Your task to perform on an android device: turn on airplane mode Image 0: 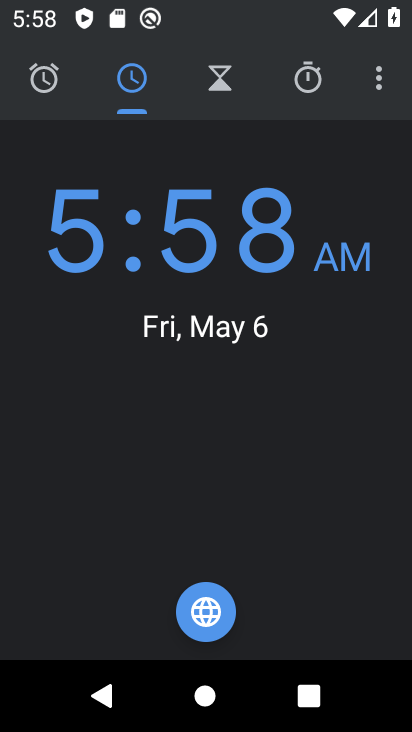
Step 0: drag from (266, 7) to (247, 575)
Your task to perform on an android device: turn on airplane mode Image 1: 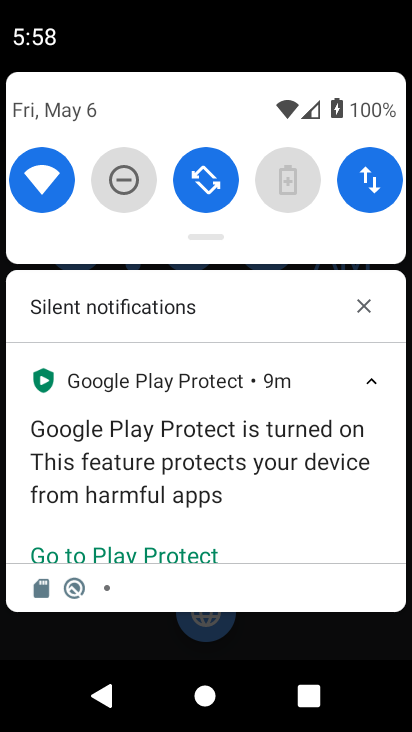
Step 1: drag from (321, 243) to (334, 653)
Your task to perform on an android device: turn on airplane mode Image 2: 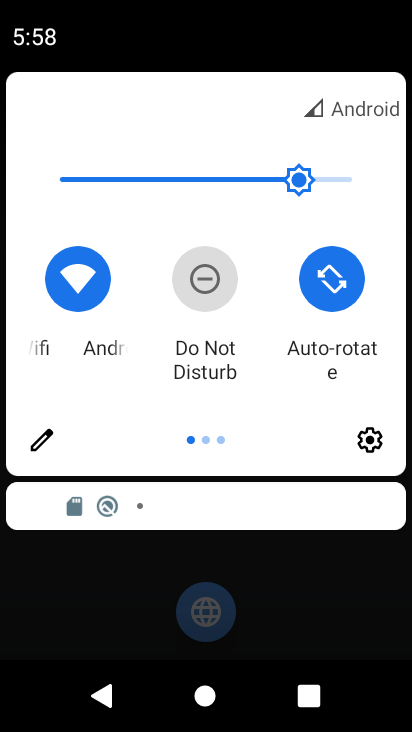
Step 2: drag from (363, 251) to (38, 246)
Your task to perform on an android device: turn on airplane mode Image 3: 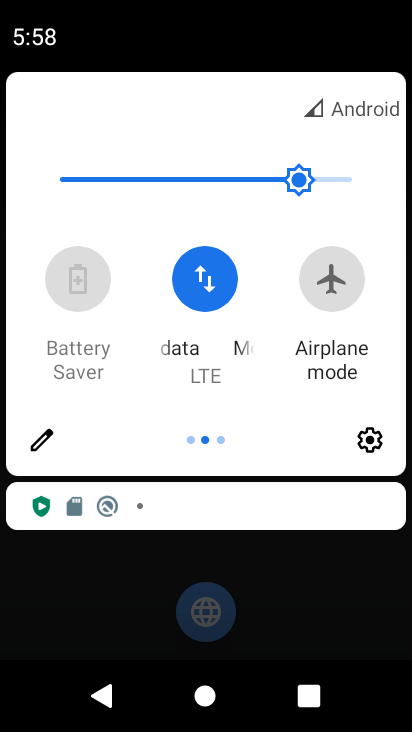
Step 3: click (342, 278)
Your task to perform on an android device: turn on airplane mode Image 4: 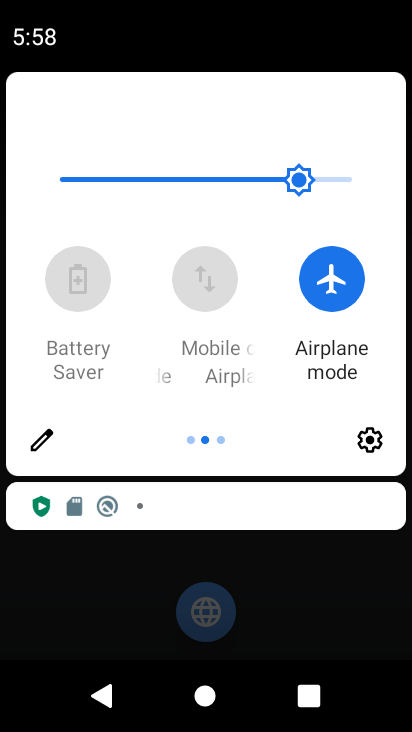
Step 4: task complete